Your task to perform on an android device: choose inbox layout in the gmail app Image 0: 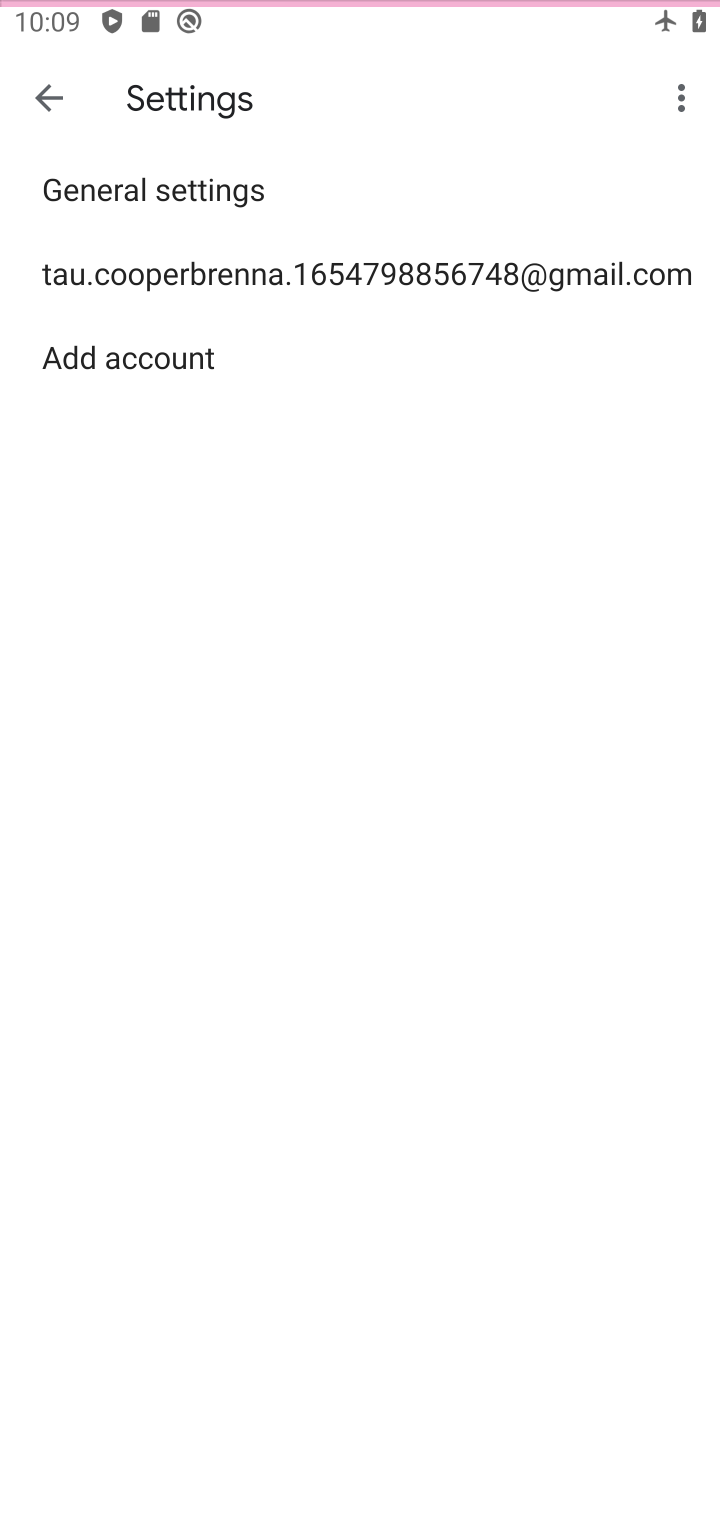
Step 0: press home button
Your task to perform on an android device: choose inbox layout in the gmail app Image 1: 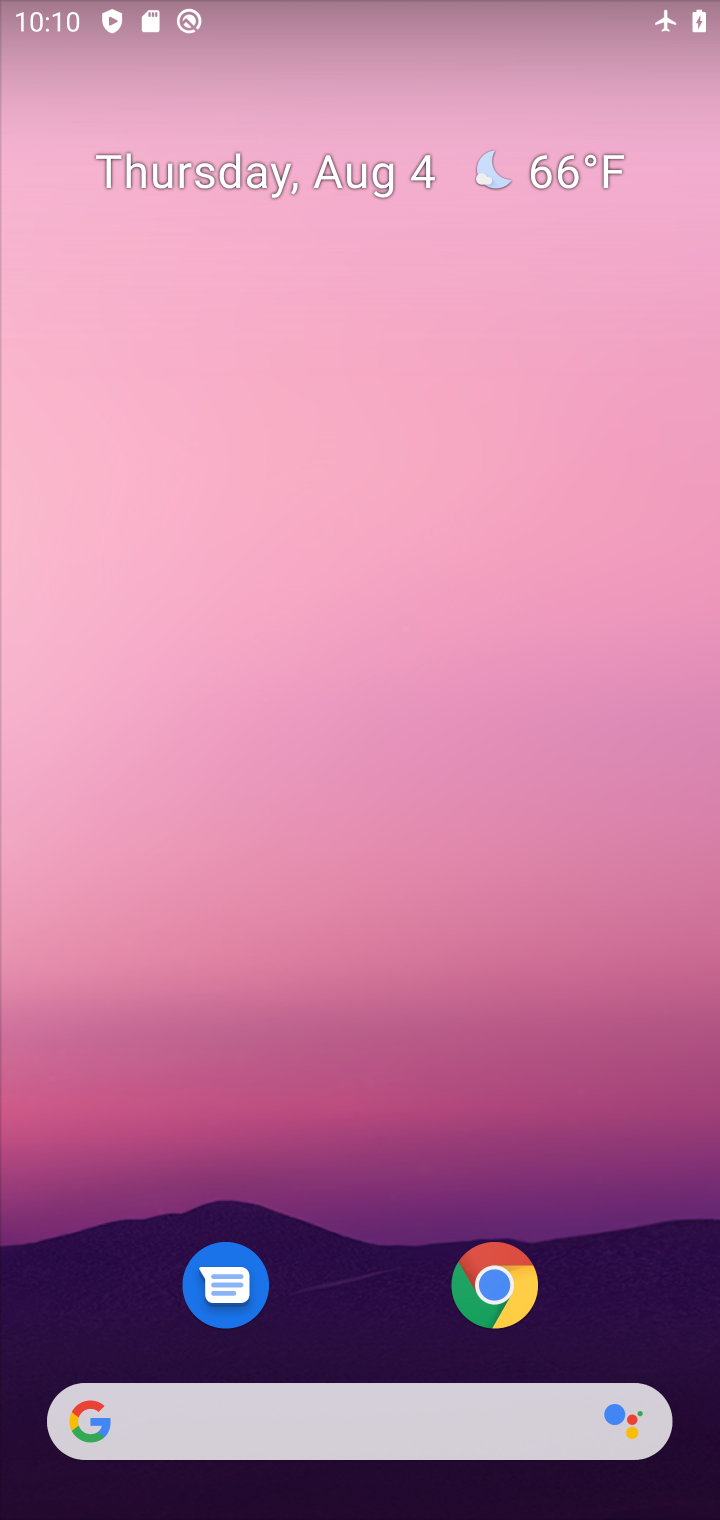
Step 1: drag from (308, 946) to (287, 0)
Your task to perform on an android device: choose inbox layout in the gmail app Image 2: 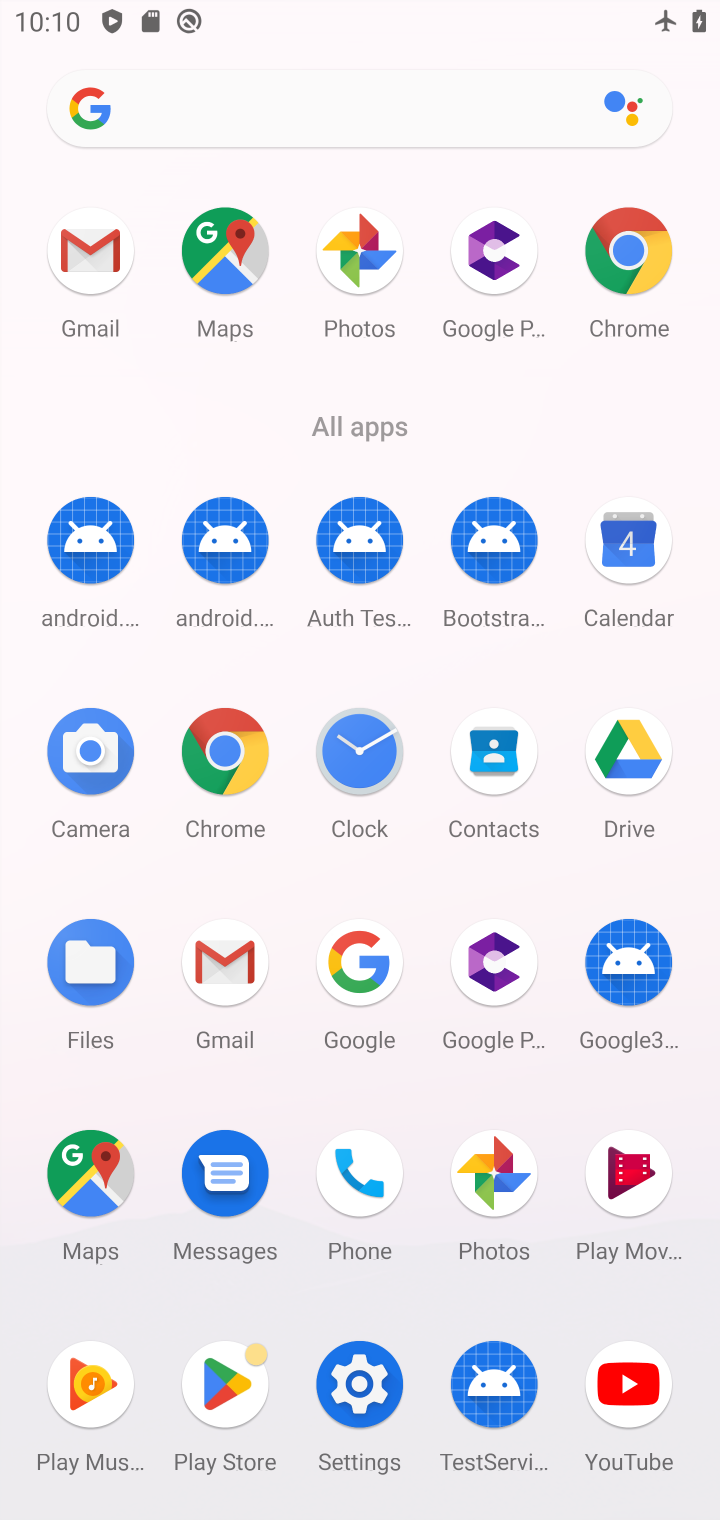
Step 2: click (200, 961)
Your task to perform on an android device: choose inbox layout in the gmail app Image 3: 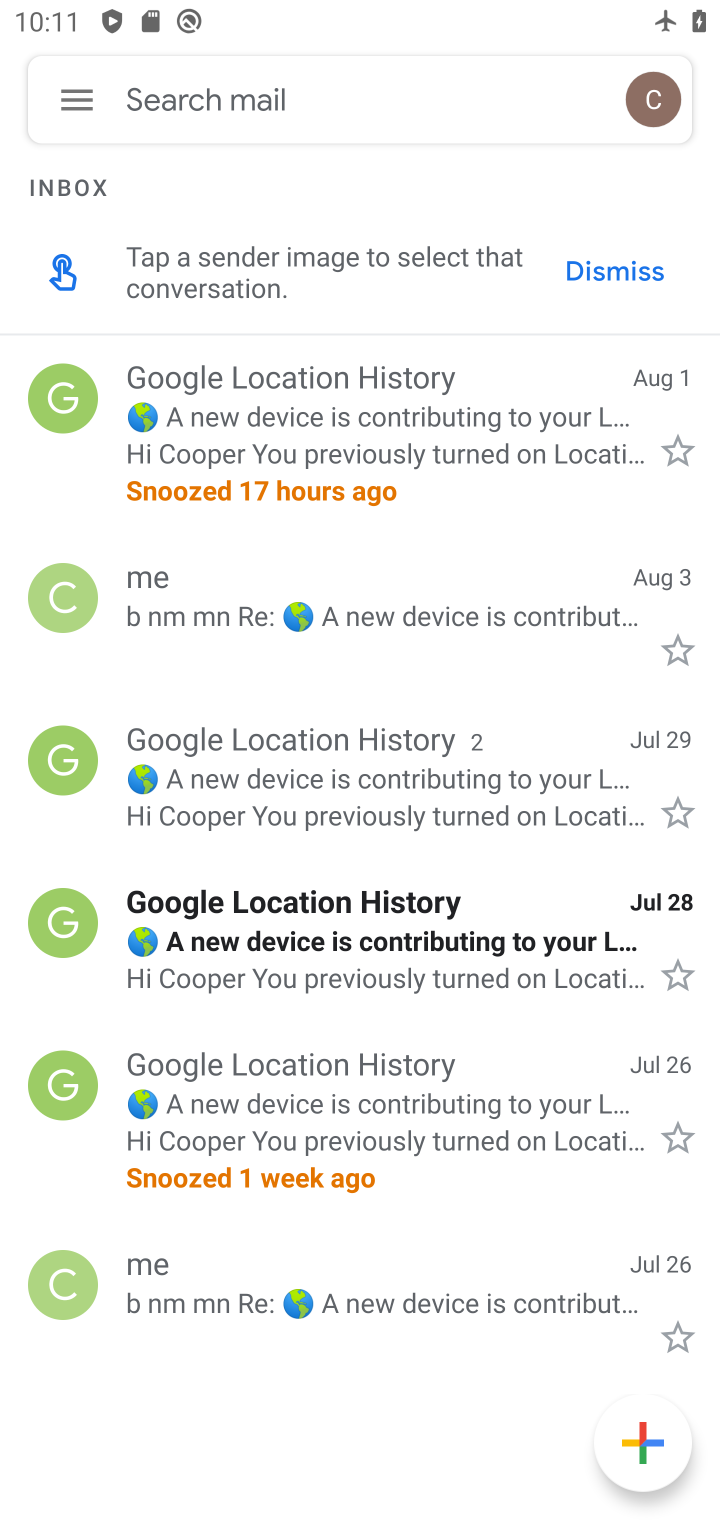
Step 3: drag from (342, 1163) to (367, 437)
Your task to perform on an android device: choose inbox layout in the gmail app Image 4: 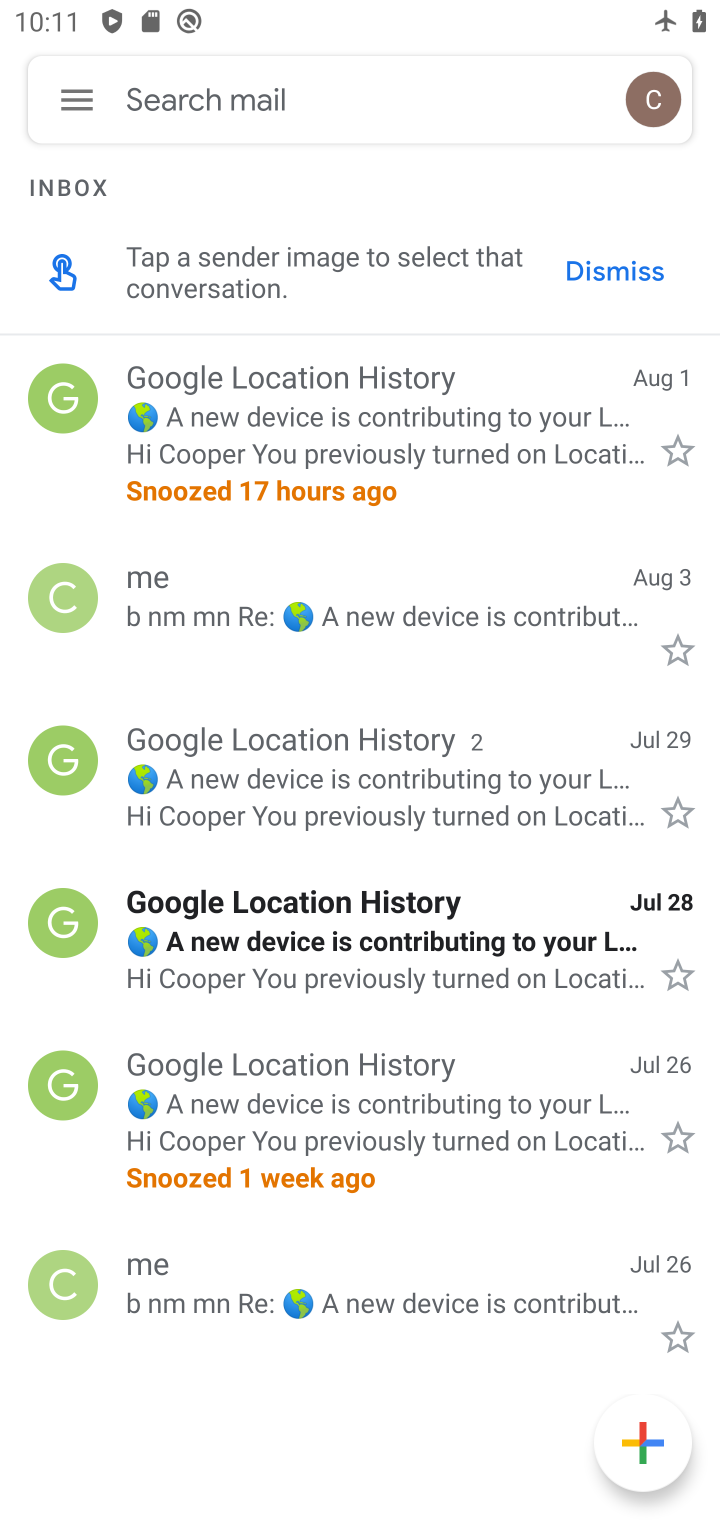
Step 4: click (76, 100)
Your task to perform on an android device: choose inbox layout in the gmail app Image 5: 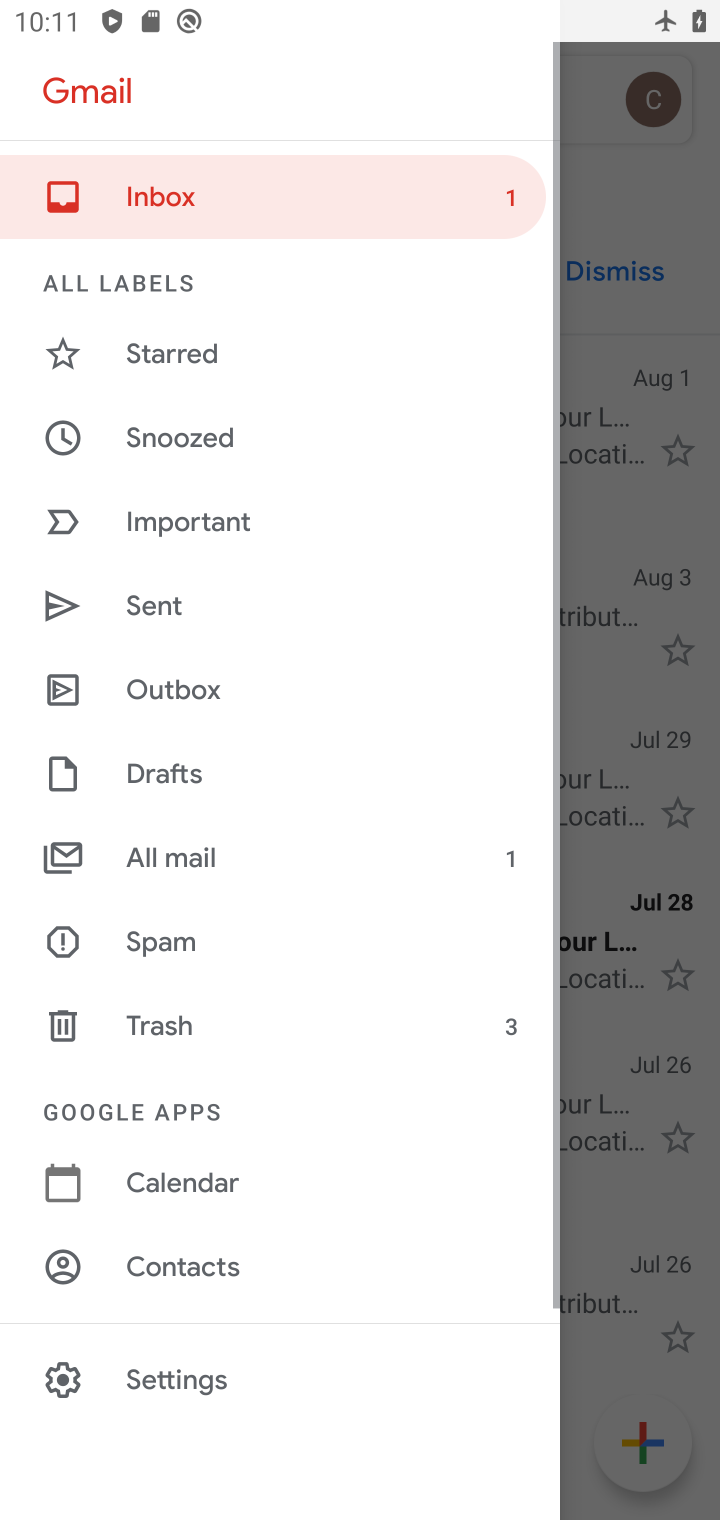
Step 5: drag from (298, 1242) to (245, 481)
Your task to perform on an android device: choose inbox layout in the gmail app Image 6: 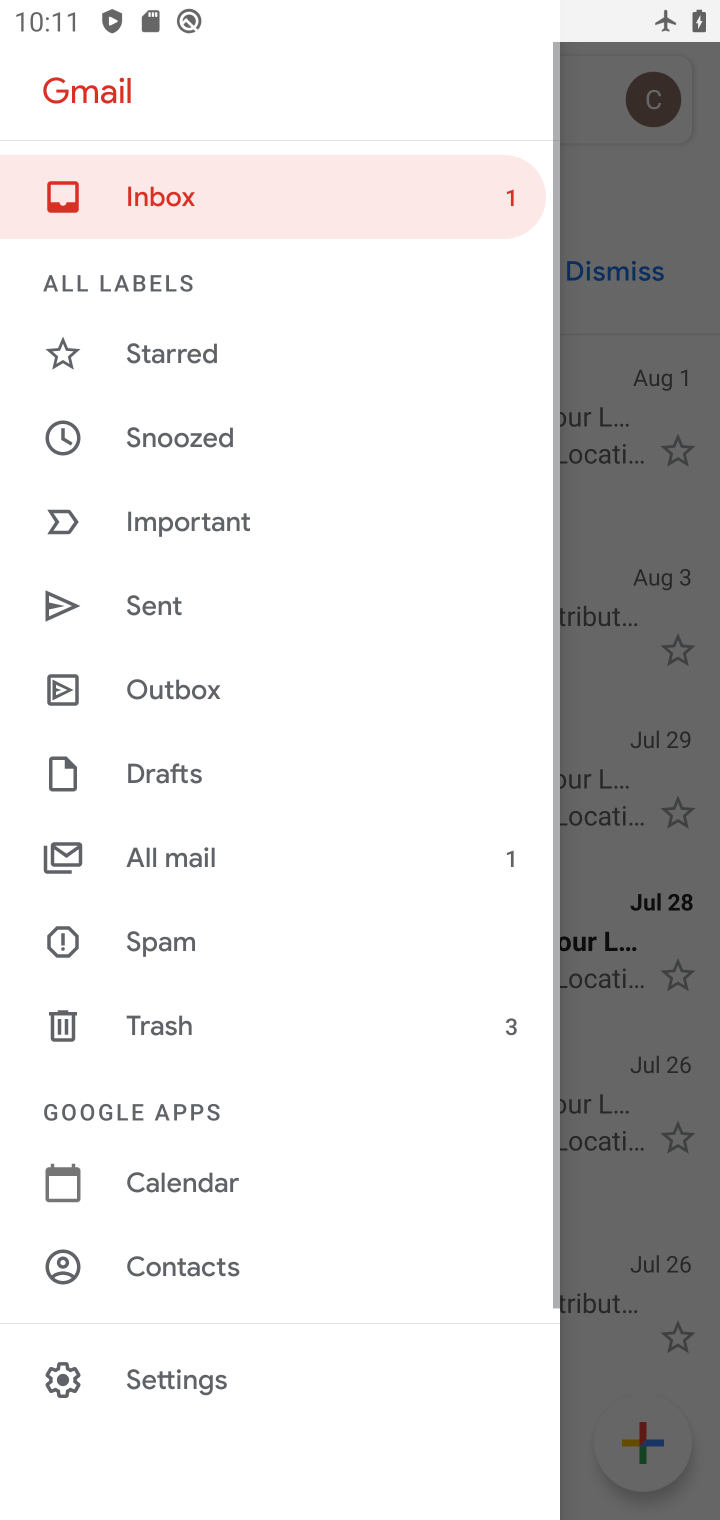
Step 6: click (140, 1365)
Your task to perform on an android device: choose inbox layout in the gmail app Image 7: 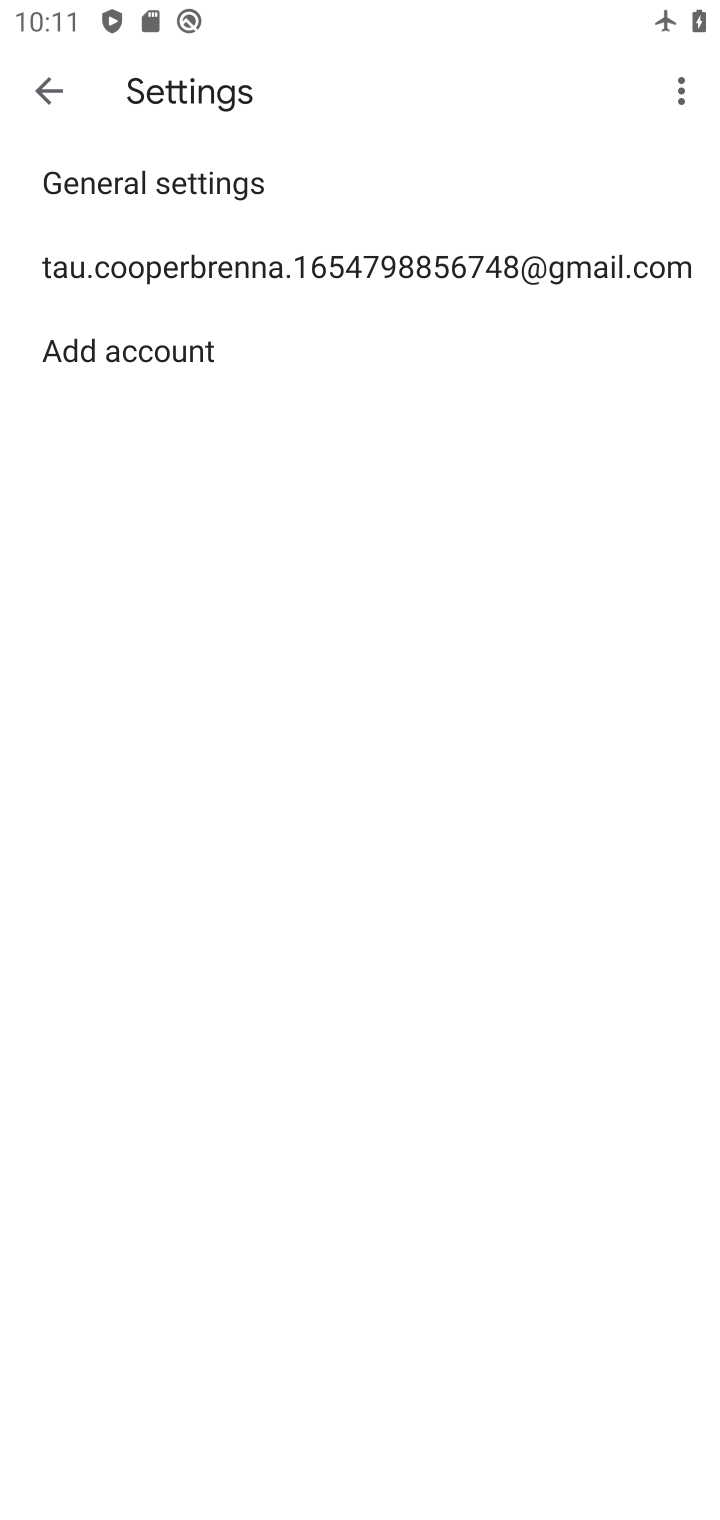
Step 7: click (276, 270)
Your task to perform on an android device: choose inbox layout in the gmail app Image 8: 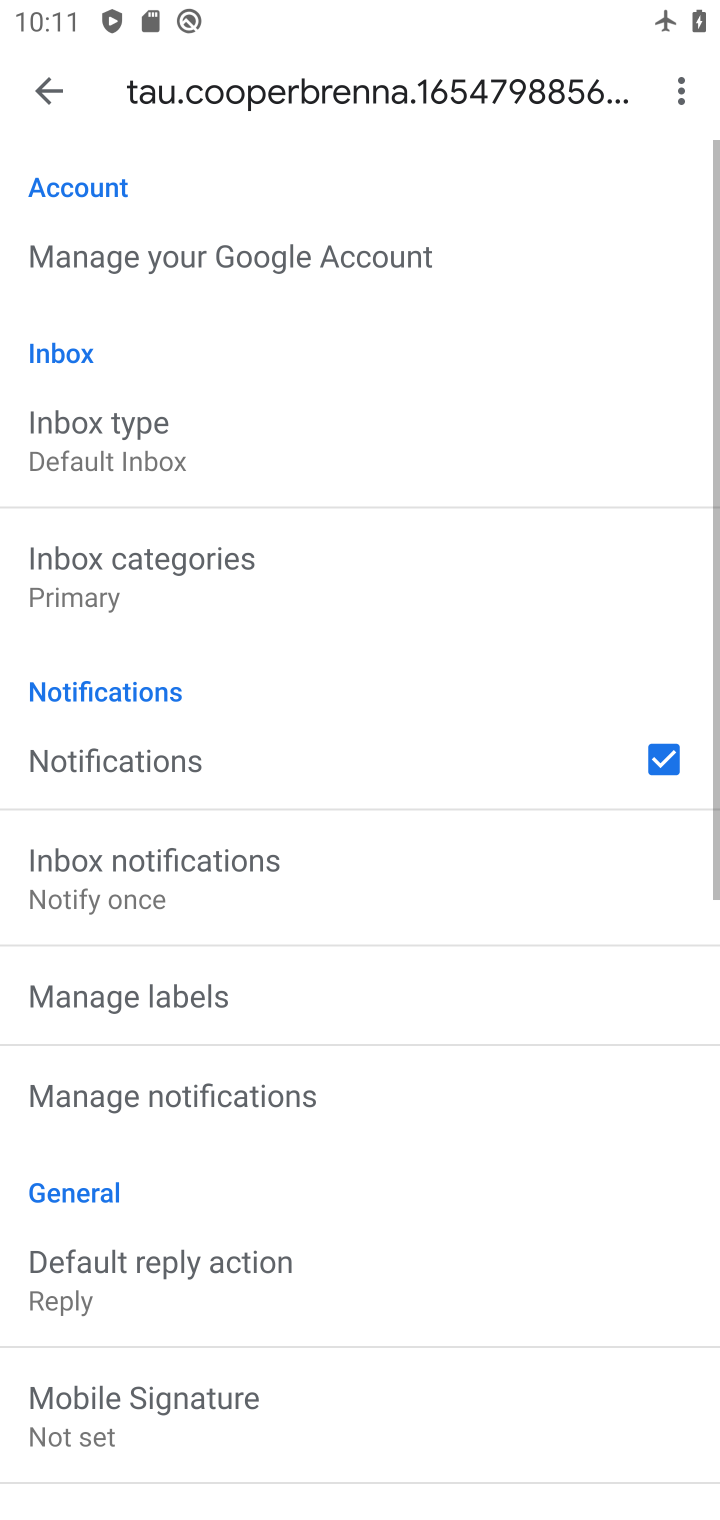
Step 8: drag from (417, 1275) to (332, 529)
Your task to perform on an android device: choose inbox layout in the gmail app Image 9: 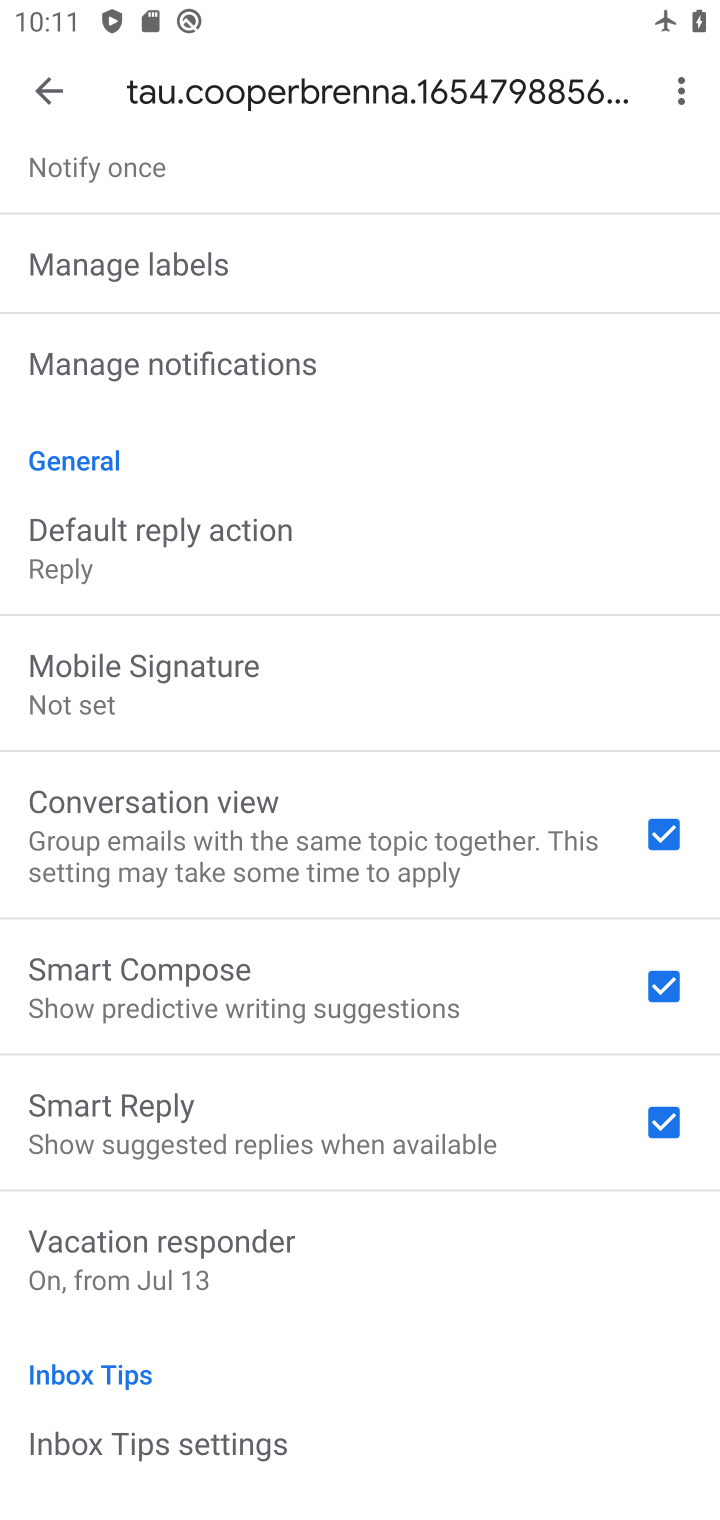
Step 9: drag from (306, 1266) to (330, 612)
Your task to perform on an android device: choose inbox layout in the gmail app Image 10: 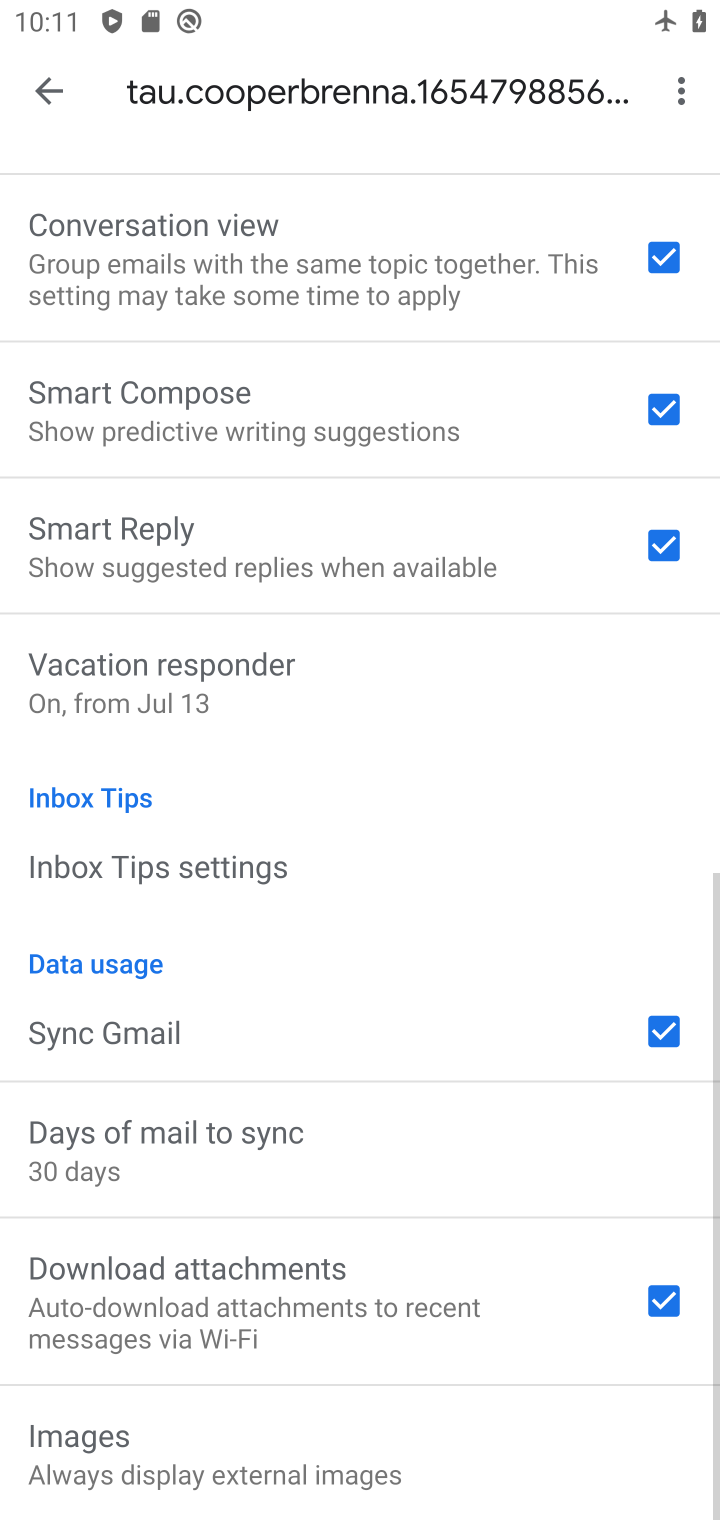
Step 10: drag from (303, 356) to (257, 1488)
Your task to perform on an android device: choose inbox layout in the gmail app Image 11: 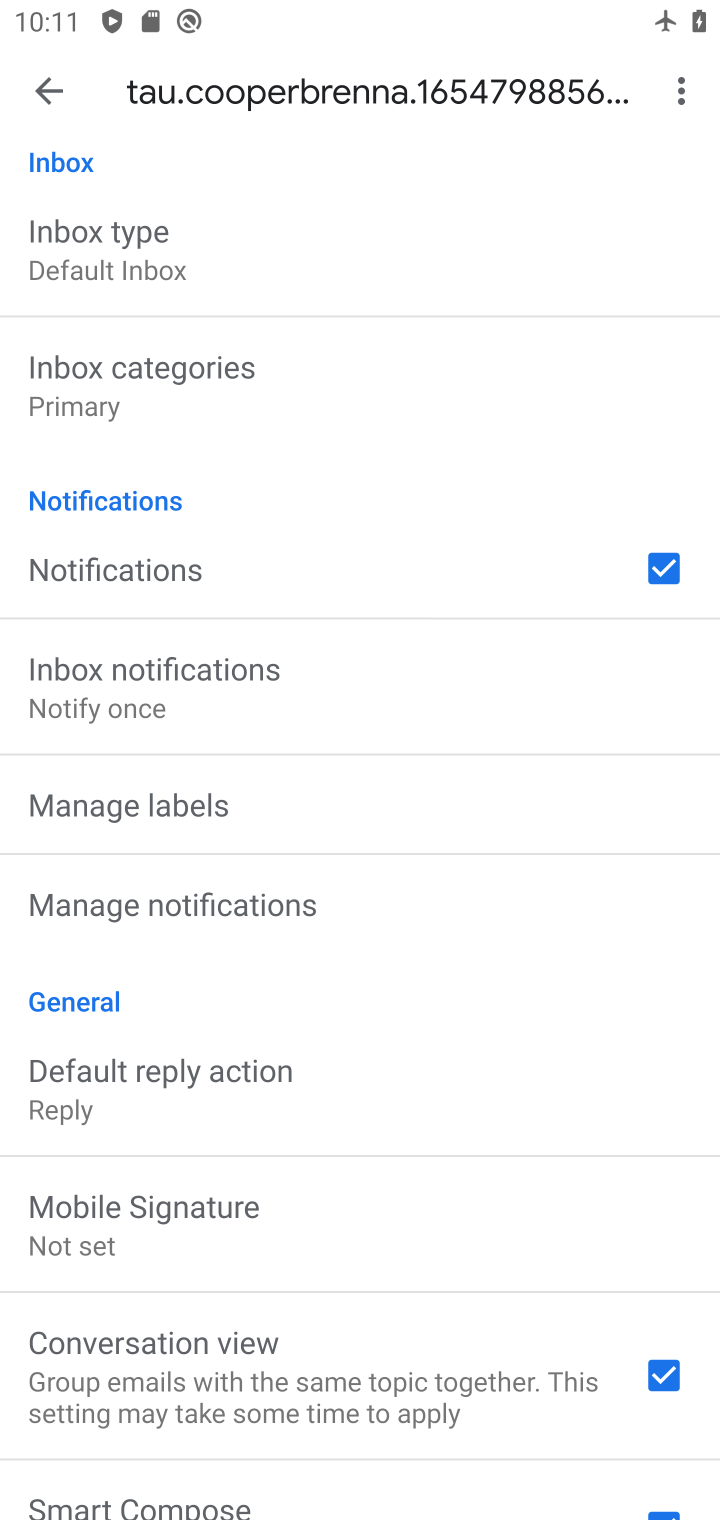
Step 11: click (163, 259)
Your task to perform on an android device: choose inbox layout in the gmail app Image 12: 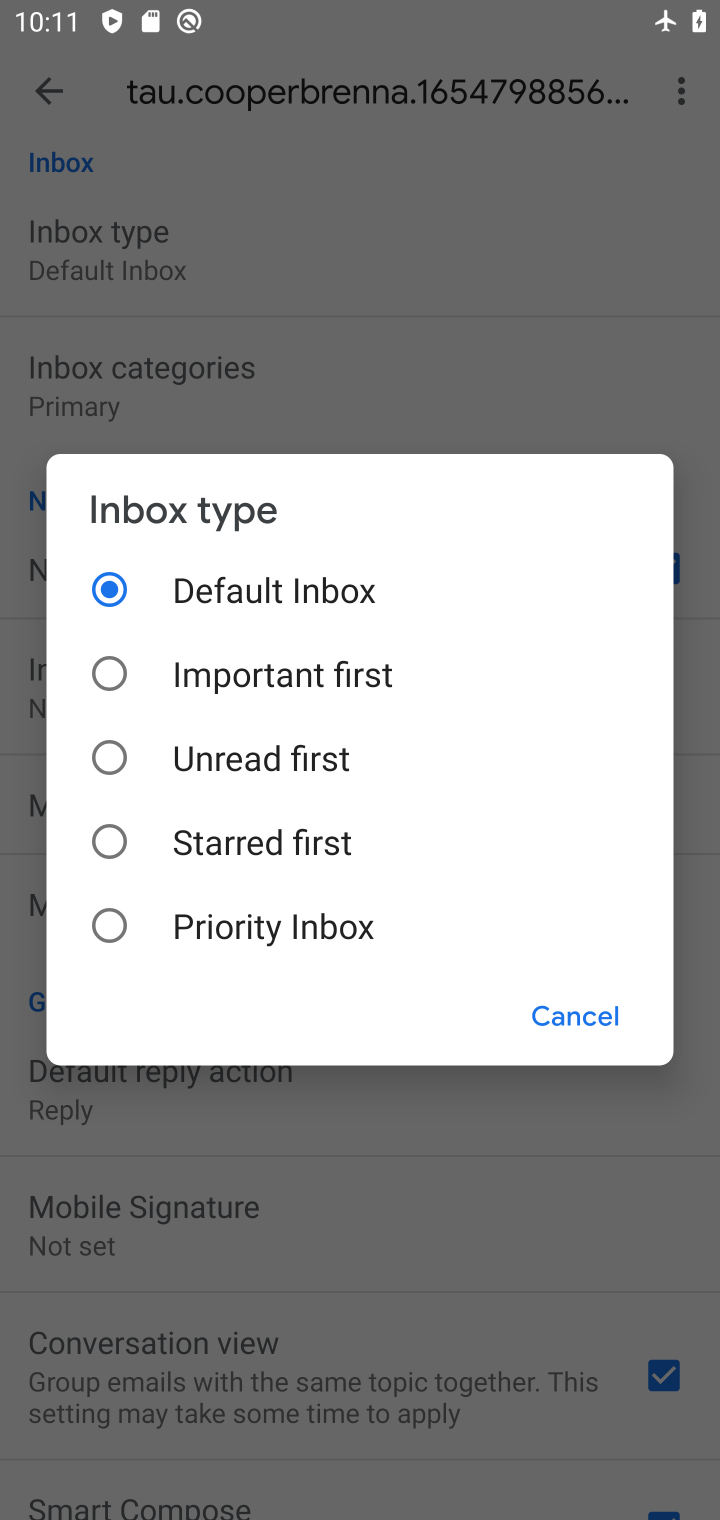
Step 12: click (223, 843)
Your task to perform on an android device: choose inbox layout in the gmail app Image 13: 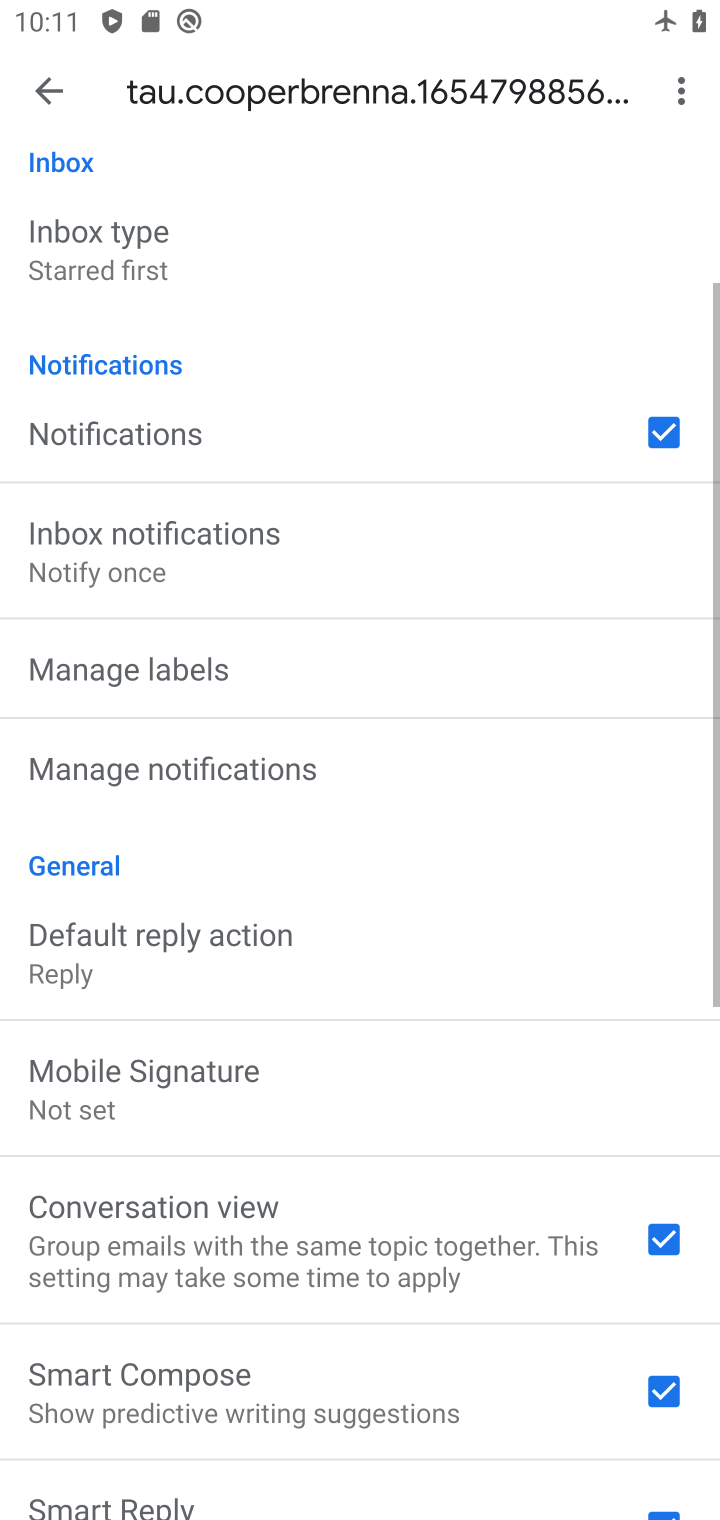
Step 13: task complete